Your task to perform on an android device: open app "Walmart Shopping & Grocery" (install if not already installed) and go to login screen Image 0: 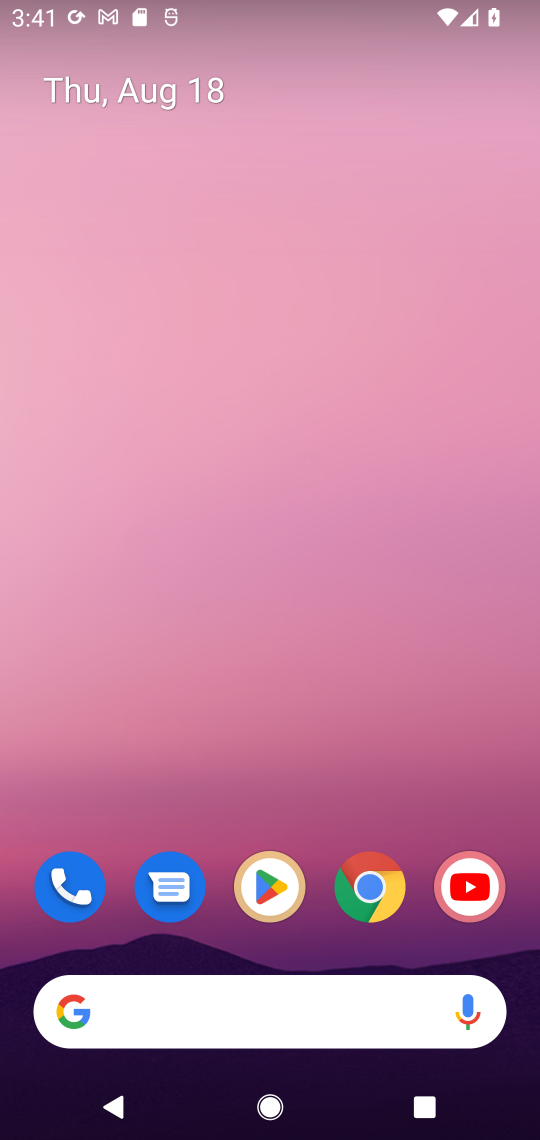
Step 0: click (260, 880)
Your task to perform on an android device: open app "Walmart Shopping & Grocery" (install if not already installed) and go to login screen Image 1: 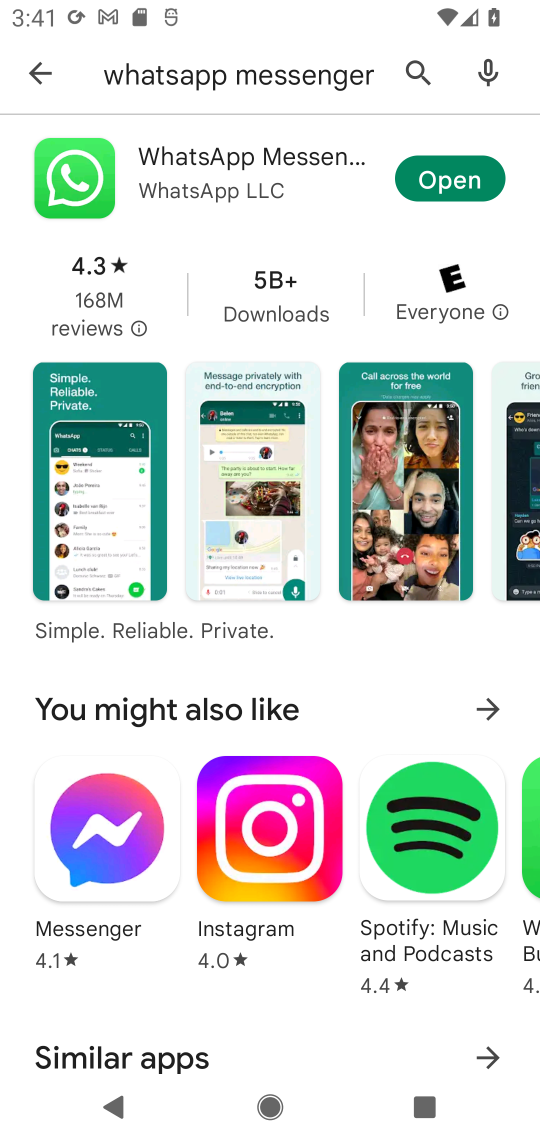
Step 1: click (430, 64)
Your task to perform on an android device: open app "Walmart Shopping & Grocery" (install if not already installed) and go to login screen Image 2: 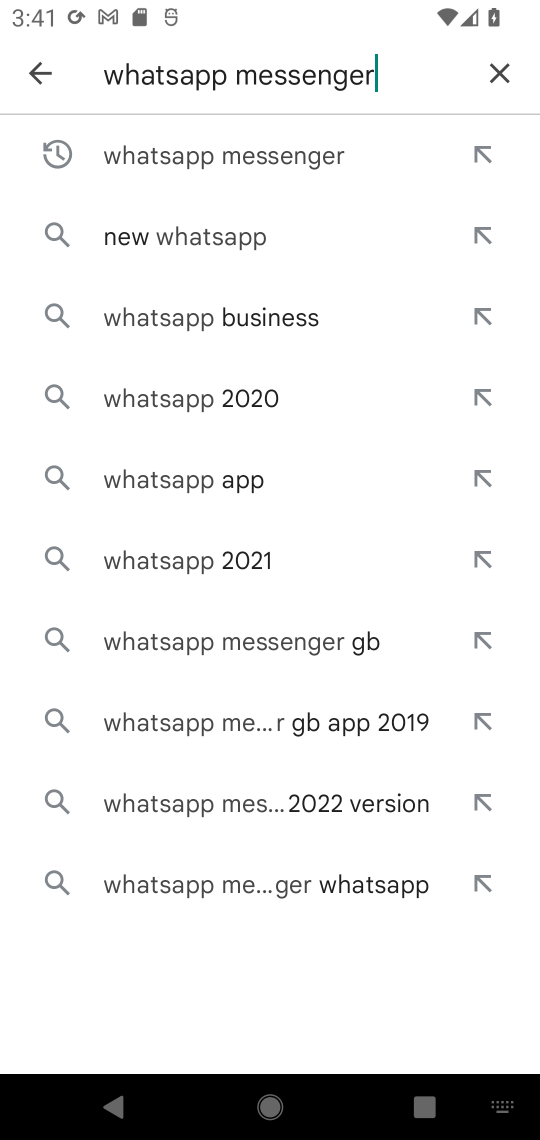
Step 2: click (496, 73)
Your task to perform on an android device: open app "Walmart Shopping & Grocery" (install if not already installed) and go to login screen Image 3: 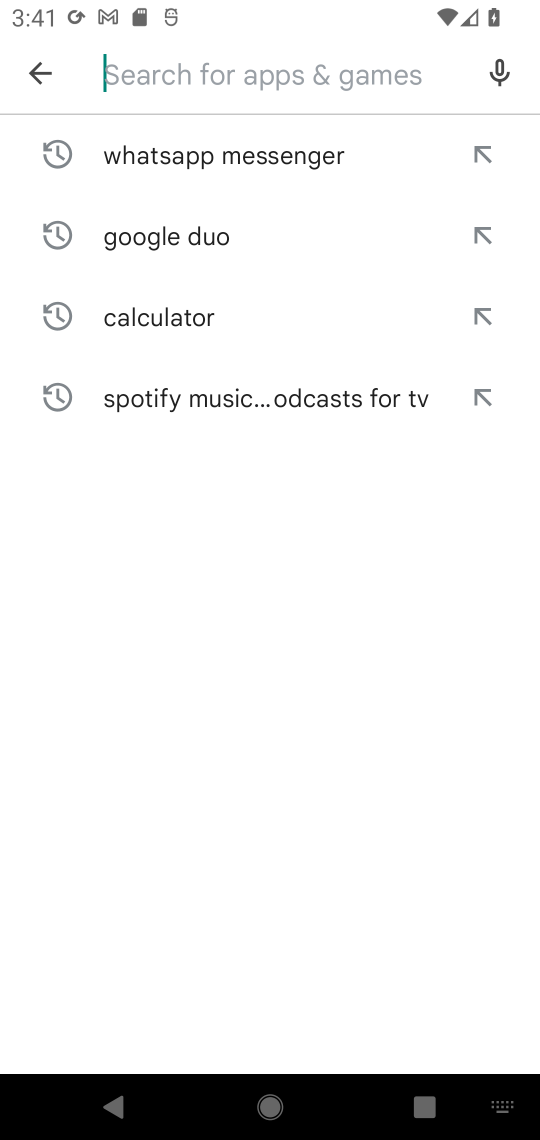
Step 3: type "Walmart Shopping & Grocery"
Your task to perform on an android device: open app "Walmart Shopping & Grocery" (install if not already installed) and go to login screen Image 4: 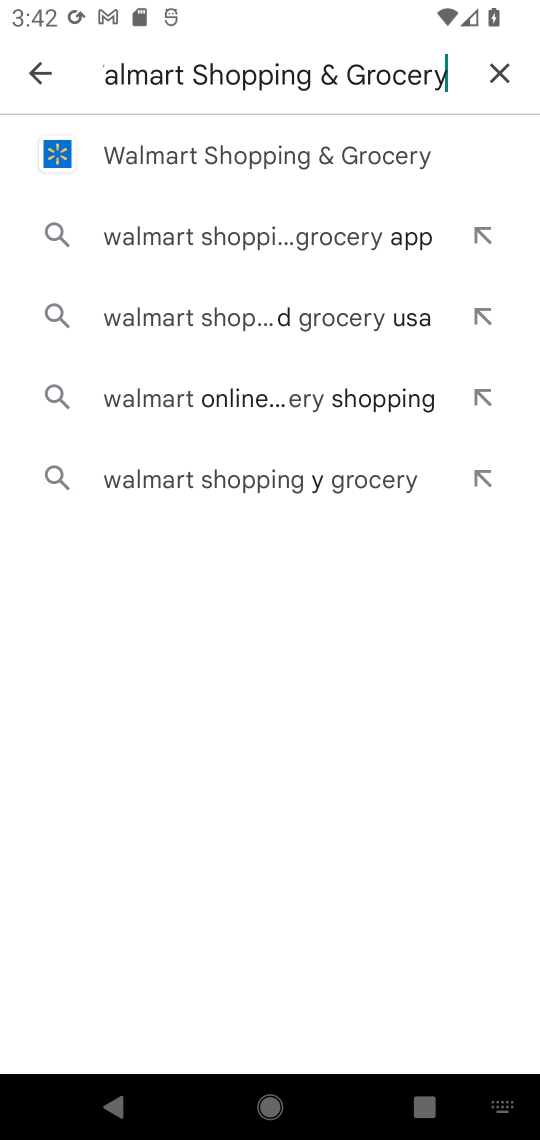
Step 4: click (168, 154)
Your task to perform on an android device: open app "Walmart Shopping & Grocery" (install if not already installed) and go to login screen Image 5: 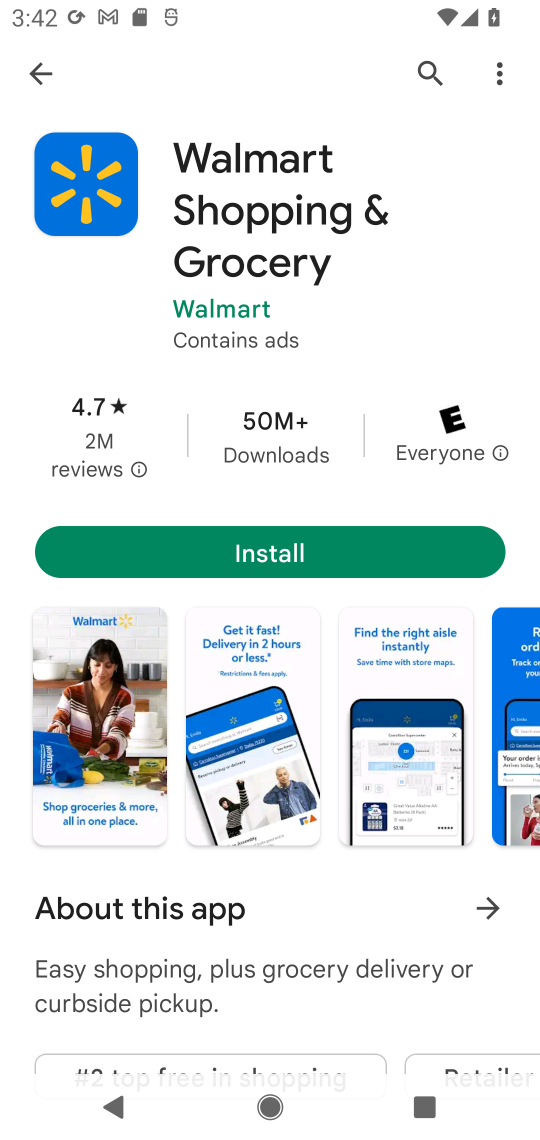
Step 5: click (240, 554)
Your task to perform on an android device: open app "Walmart Shopping & Grocery" (install if not already installed) and go to login screen Image 6: 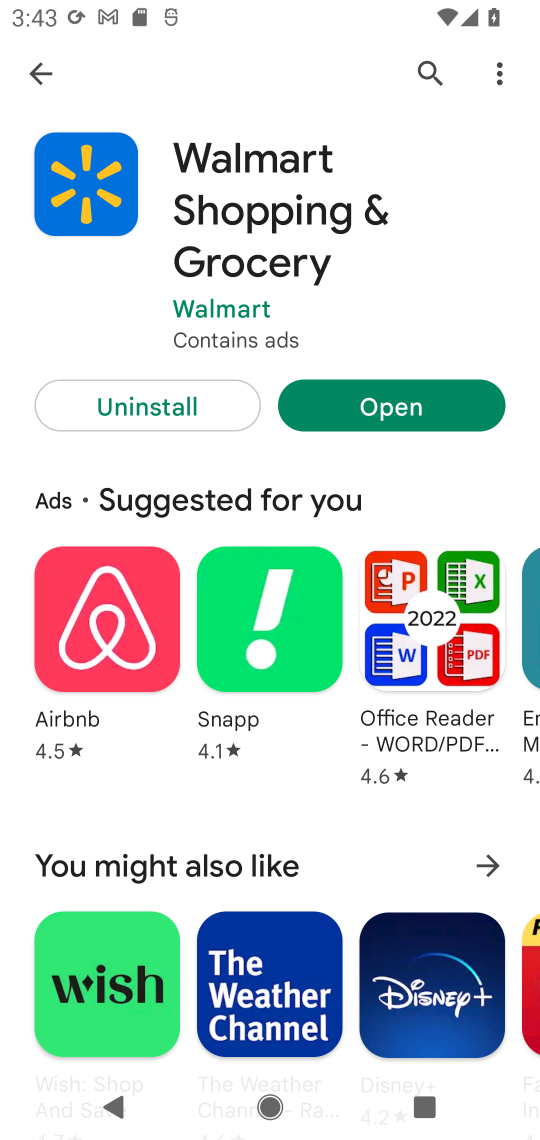
Step 6: click (395, 404)
Your task to perform on an android device: open app "Walmart Shopping & Grocery" (install if not already installed) and go to login screen Image 7: 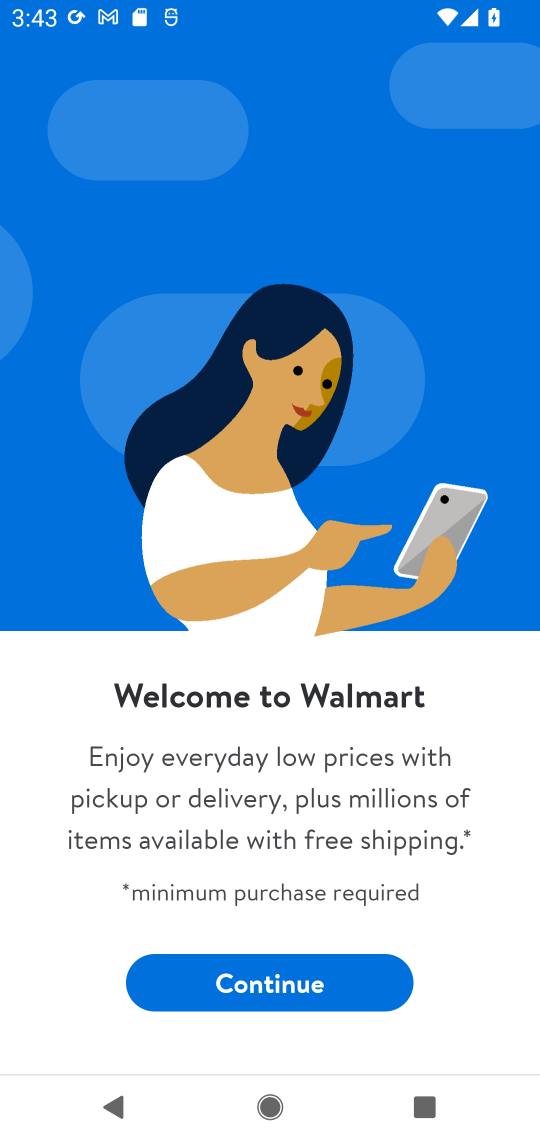
Step 7: click (264, 983)
Your task to perform on an android device: open app "Walmart Shopping & Grocery" (install if not already installed) and go to login screen Image 8: 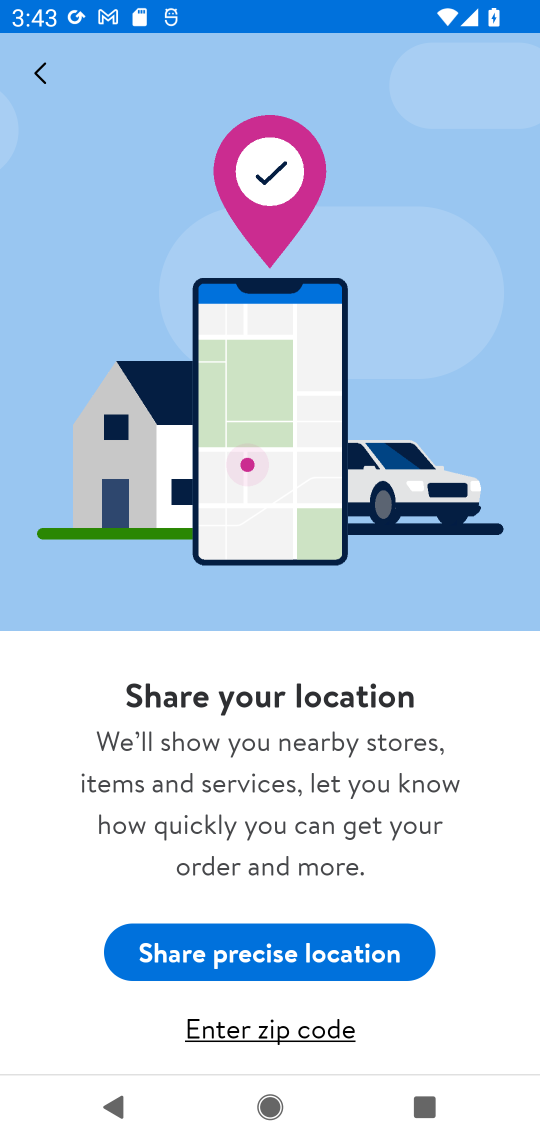
Step 8: click (242, 957)
Your task to perform on an android device: open app "Walmart Shopping & Grocery" (install if not already installed) and go to login screen Image 9: 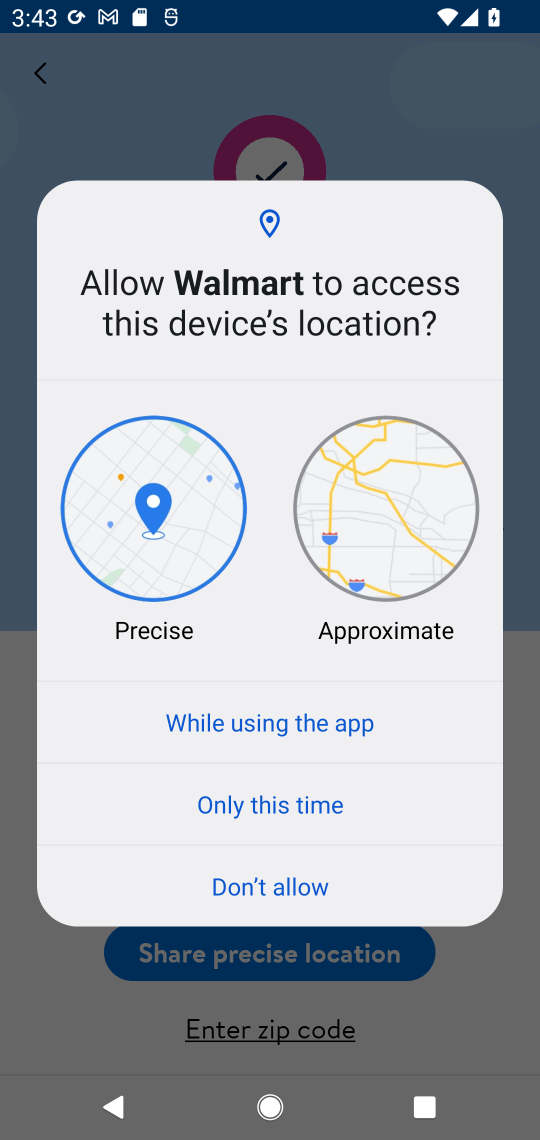
Step 9: click (299, 718)
Your task to perform on an android device: open app "Walmart Shopping & Grocery" (install if not already installed) and go to login screen Image 10: 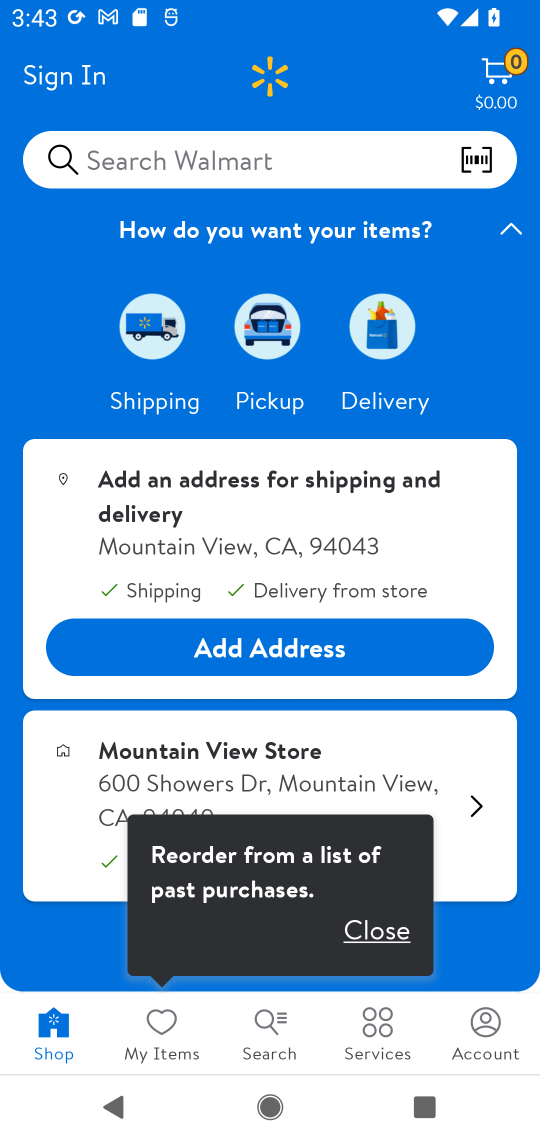
Step 10: task complete